Your task to perform on an android device: turn on showing notifications on the lock screen Image 0: 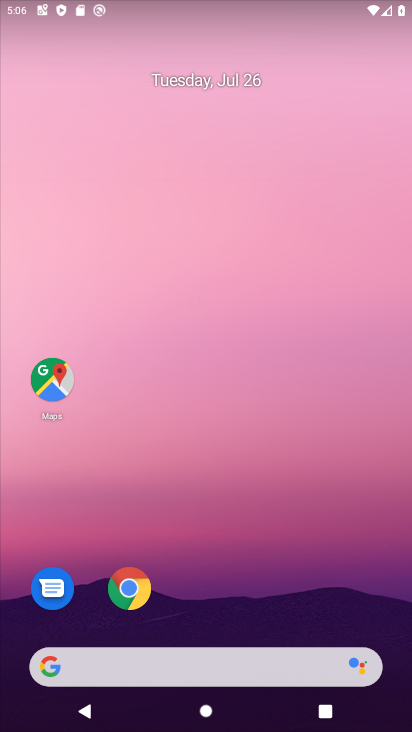
Step 0: press home button
Your task to perform on an android device: turn on showing notifications on the lock screen Image 1: 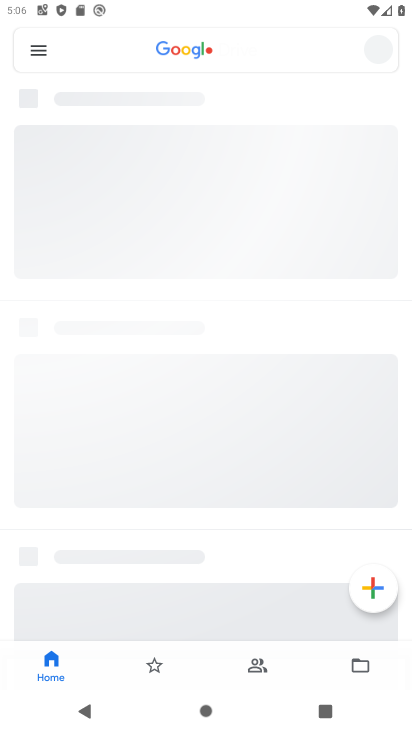
Step 1: drag from (233, 320) to (280, 4)
Your task to perform on an android device: turn on showing notifications on the lock screen Image 2: 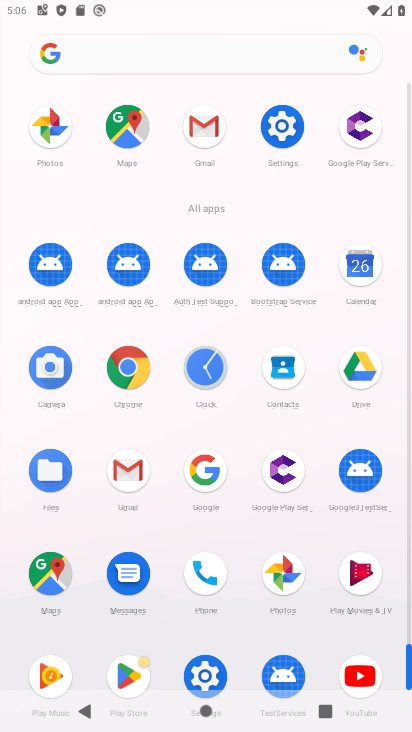
Step 2: click (293, 151)
Your task to perform on an android device: turn on showing notifications on the lock screen Image 3: 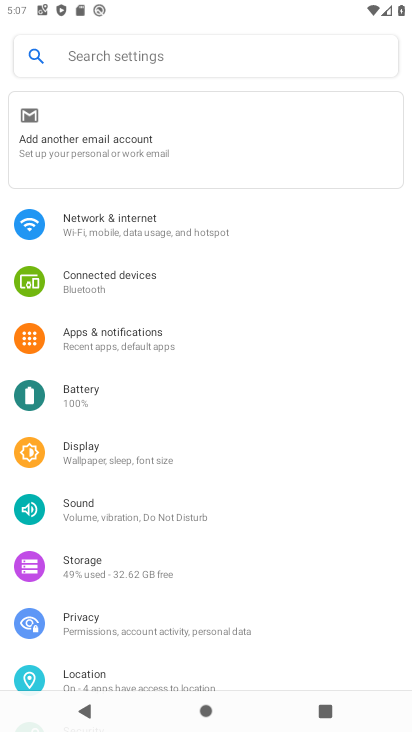
Step 3: click (123, 348)
Your task to perform on an android device: turn on showing notifications on the lock screen Image 4: 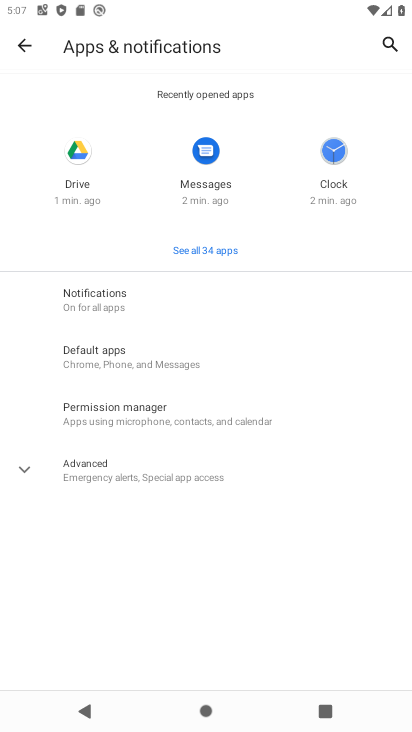
Step 4: click (118, 308)
Your task to perform on an android device: turn on showing notifications on the lock screen Image 5: 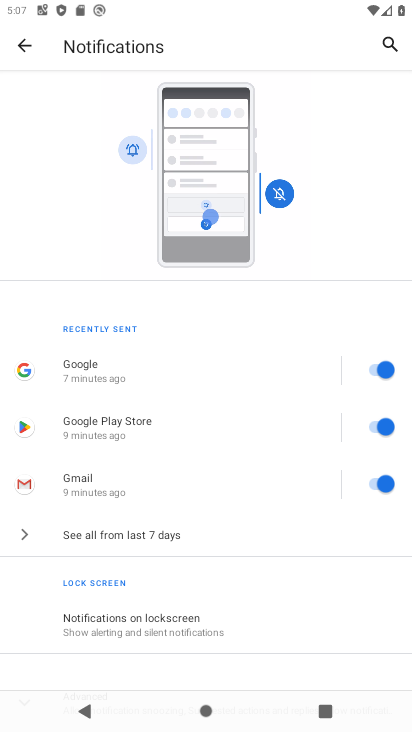
Step 5: click (204, 624)
Your task to perform on an android device: turn on showing notifications on the lock screen Image 6: 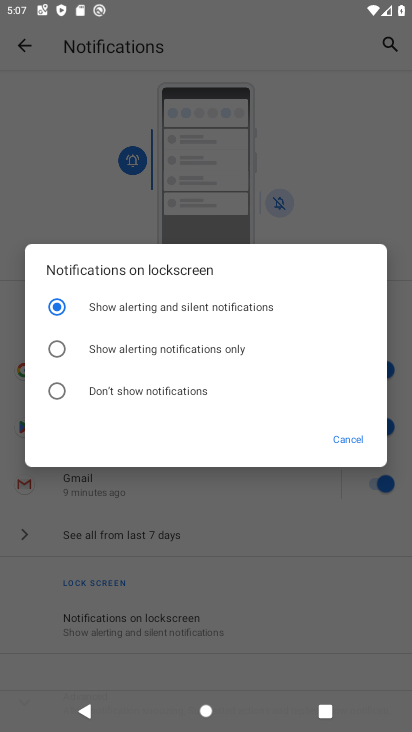
Step 6: task complete